Your task to perform on an android device: open a bookmark in the chrome app Image 0: 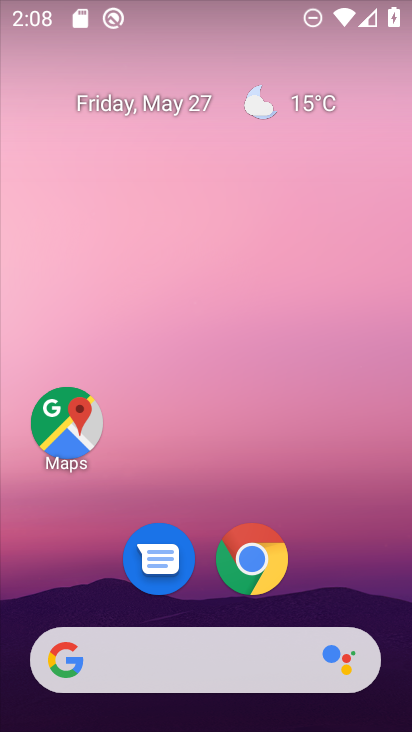
Step 0: drag from (252, 683) to (310, 49)
Your task to perform on an android device: open a bookmark in the chrome app Image 1: 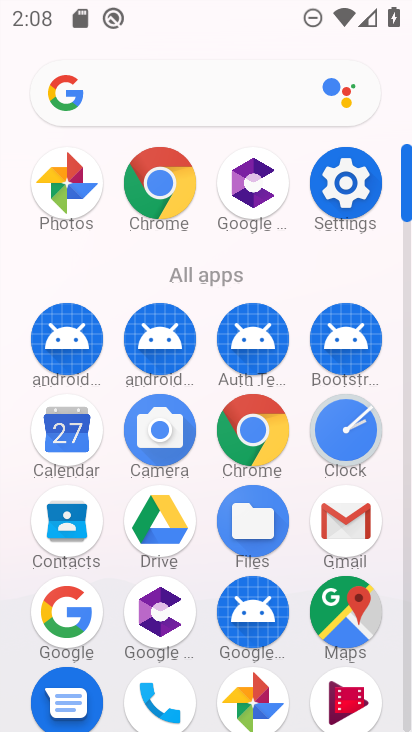
Step 1: click (263, 417)
Your task to perform on an android device: open a bookmark in the chrome app Image 2: 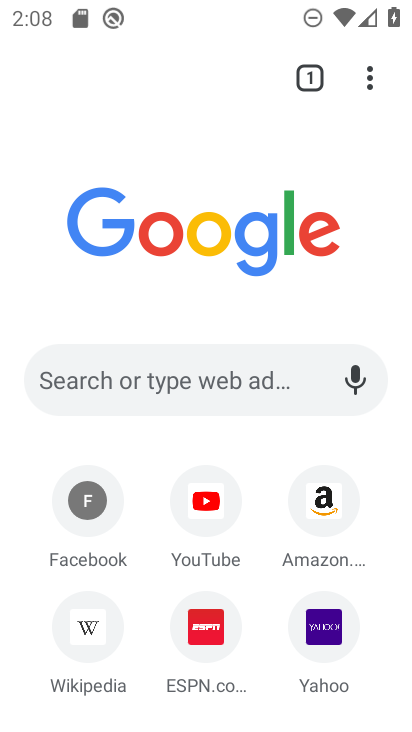
Step 2: task complete